Your task to perform on an android device: Open the map Image 0: 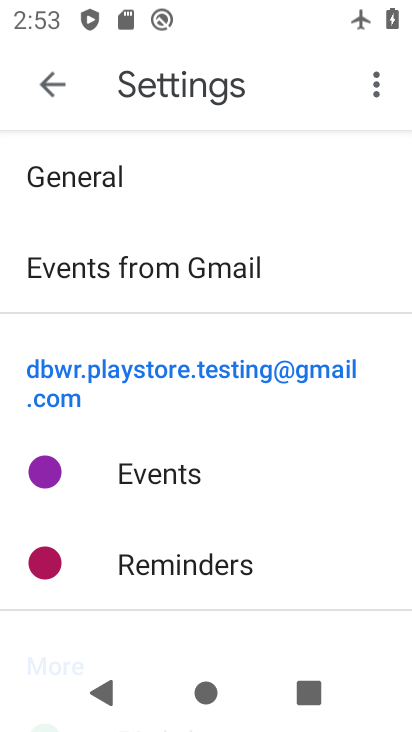
Step 0: press home button
Your task to perform on an android device: Open the map Image 1: 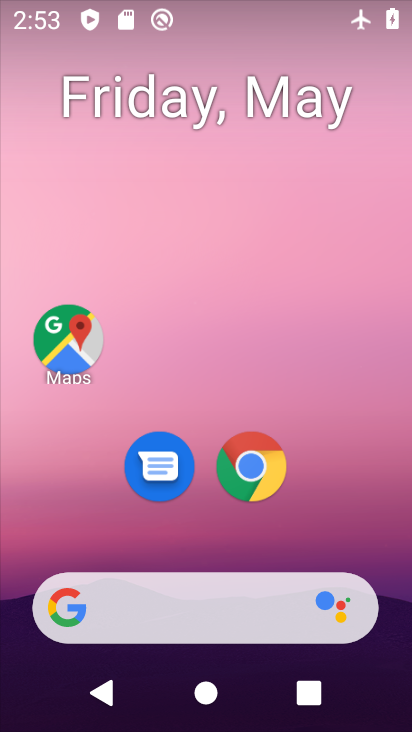
Step 1: click (66, 335)
Your task to perform on an android device: Open the map Image 2: 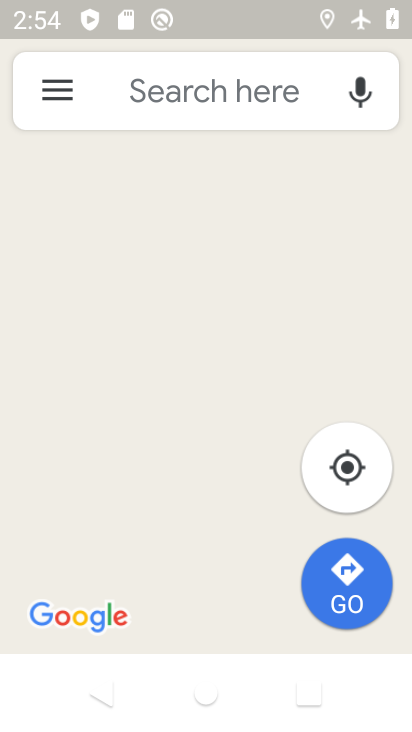
Step 2: task complete